Your task to perform on an android device: Toggle the flashlight Image 0: 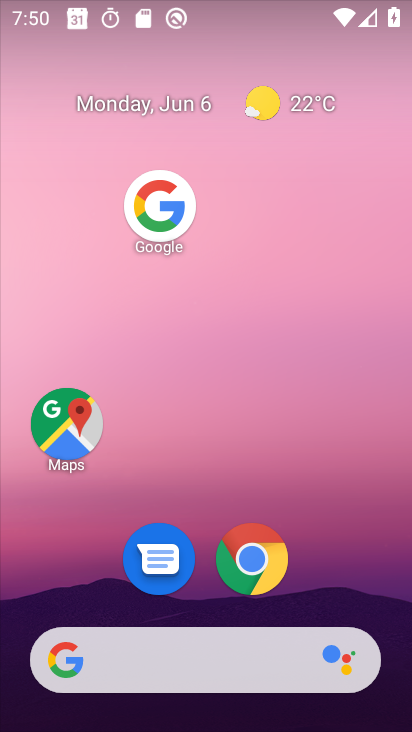
Step 0: drag from (223, 439) to (321, 157)
Your task to perform on an android device: Toggle the flashlight Image 1: 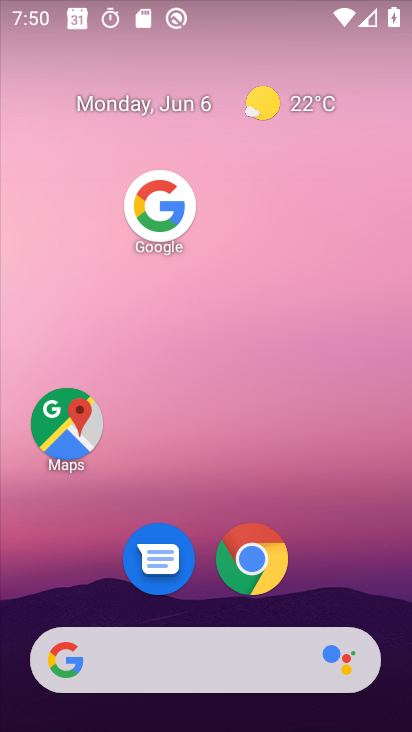
Step 1: drag from (190, 514) to (271, 133)
Your task to perform on an android device: Toggle the flashlight Image 2: 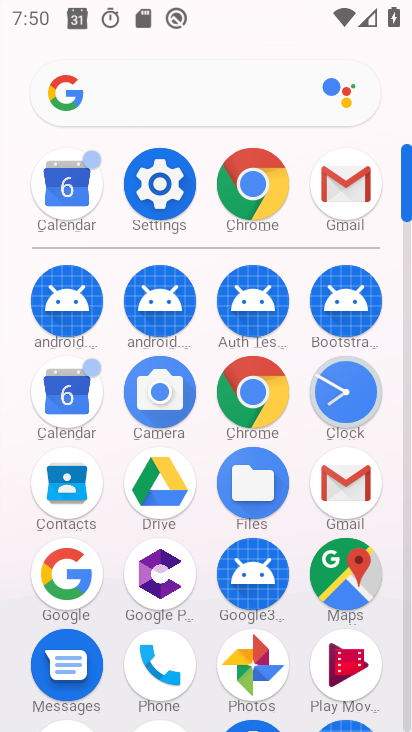
Step 2: click (163, 186)
Your task to perform on an android device: Toggle the flashlight Image 3: 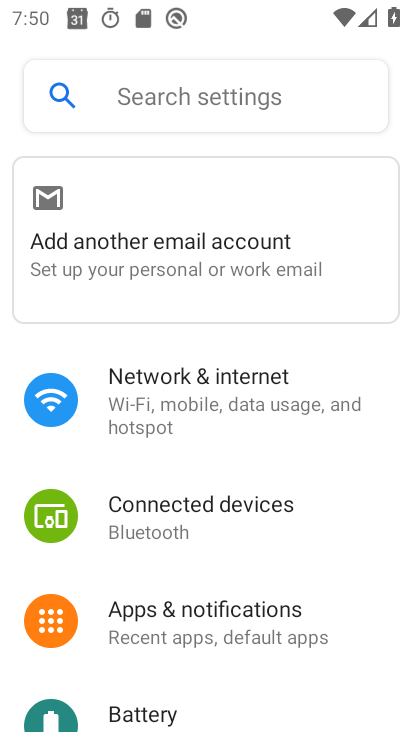
Step 3: drag from (214, 547) to (277, 166)
Your task to perform on an android device: Toggle the flashlight Image 4: 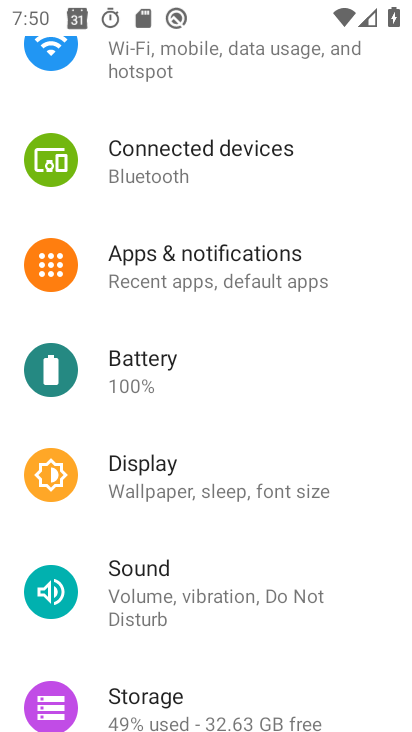
Step 4: click (206, 474)
Your task to perform on an android device: Toggle the flashlight Image 5: 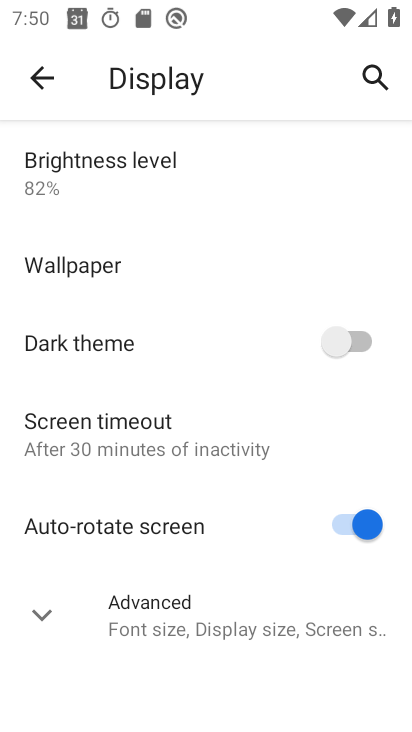
Step 5: task complete